Your task to perform on an android device: Set the phone to "Do not disturb". Image 0: 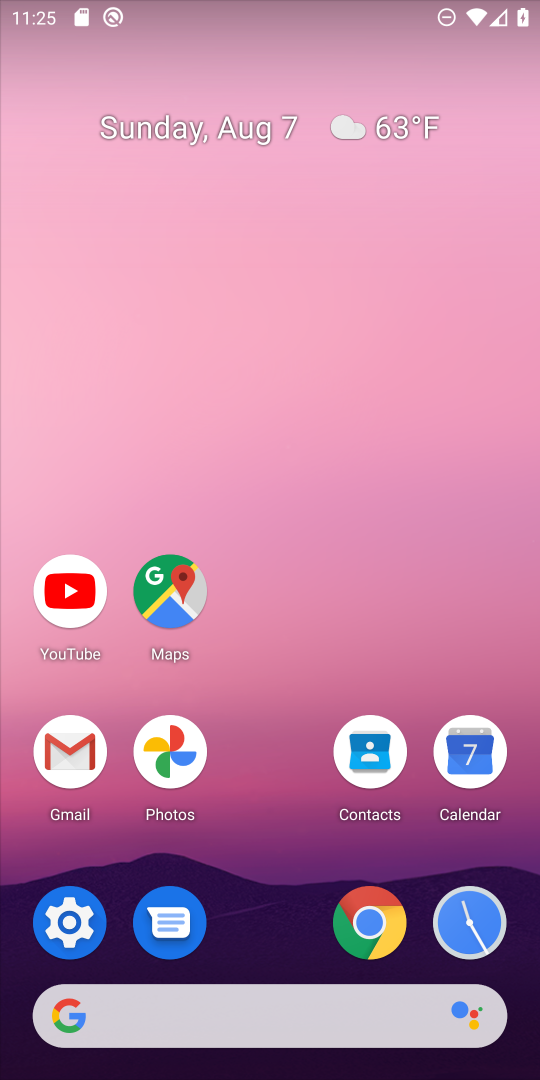
Step 0: click (66, 914)
Your task to perform on an android device: Set the phone to "Do not disturb". Image 1: 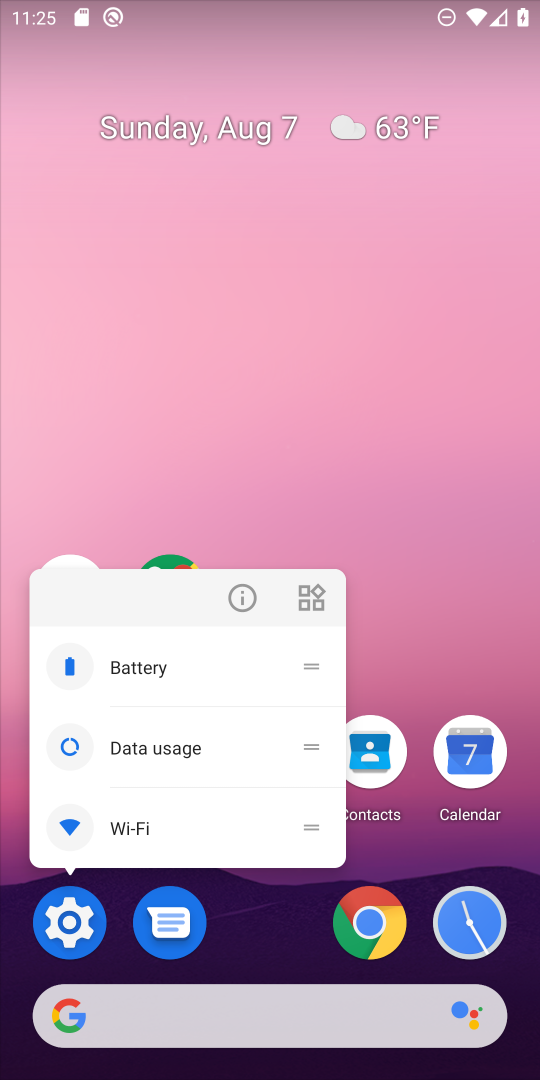
Step 1: click (56, 937)
Your task to perform on an android device: Set the phone to "Do not disturb". Image 2: 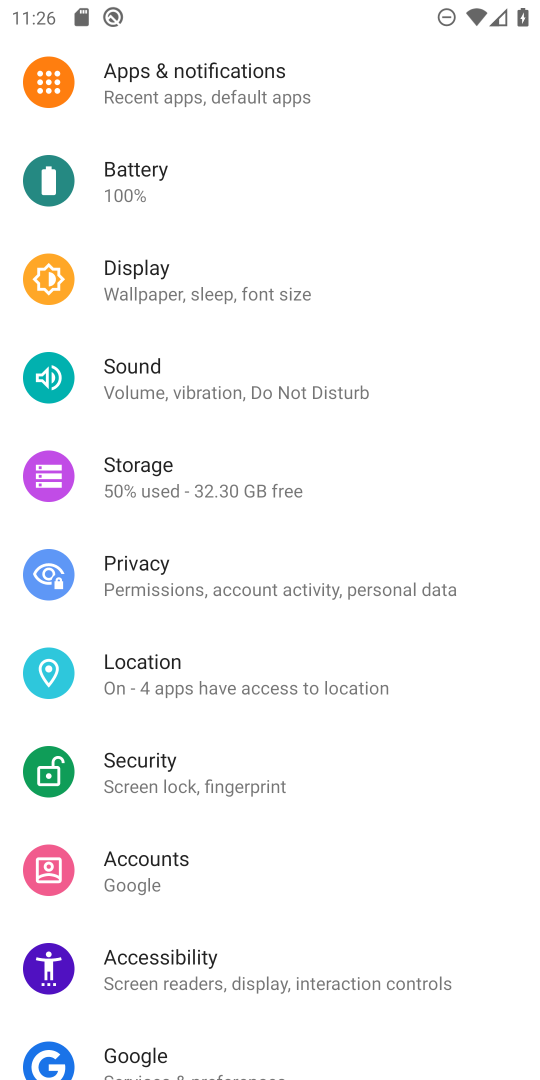
Step 2: click (142, 375)
Your task to perform on an android device: Set the phone to "Do not disturb". Image 3: 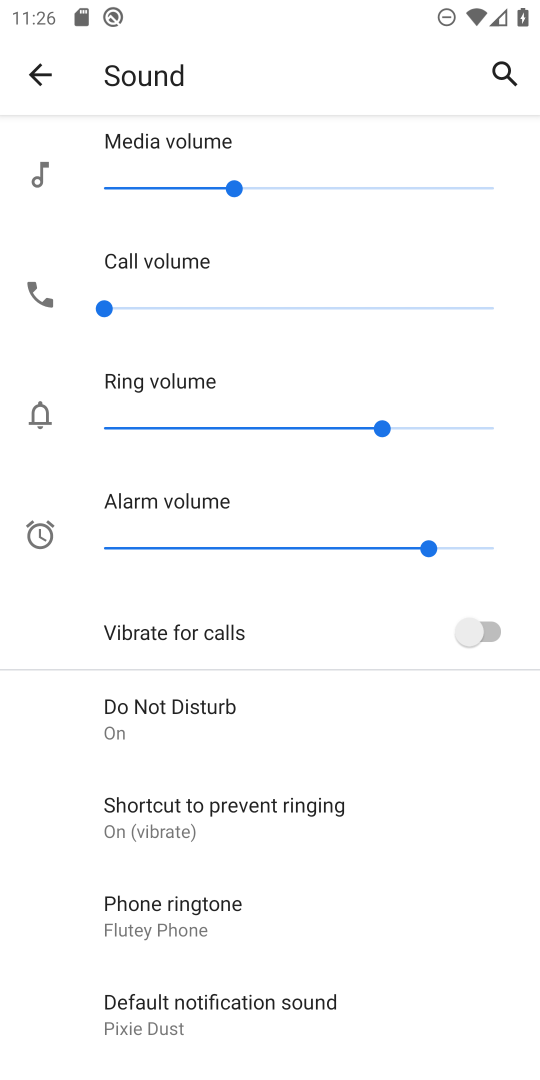
Step 3: task complete